Your task to perform on an android device: Go to settings Image 0: 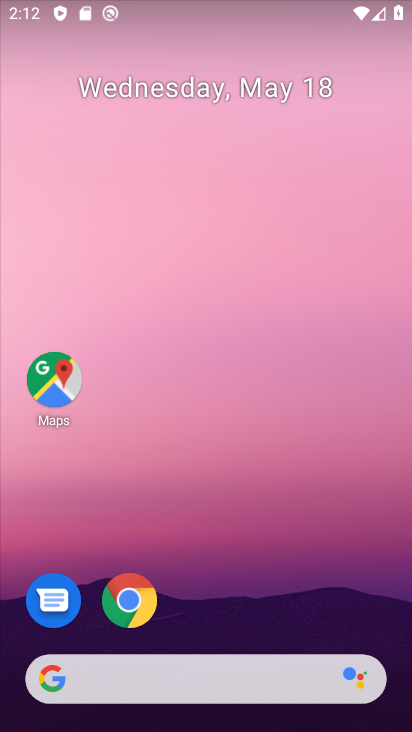
Step 0: press home button
Your task to perform on an android device: Go to settings Image 1: 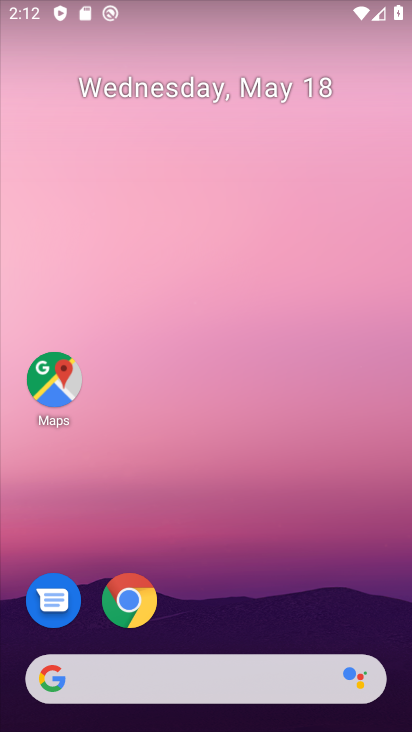
Step 1: drag from (146, 672) to (339, 38)
Your task to perform on an android device: Go to settings Image 2: 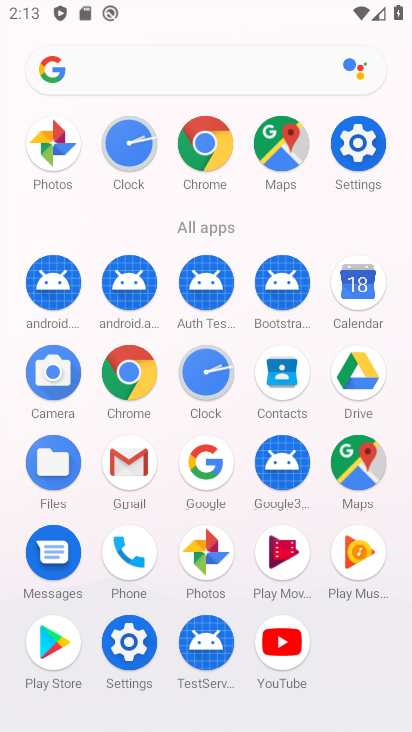
Step 2: click (371, 148)
Your task to perform on an android device: Go to settings Image 3: 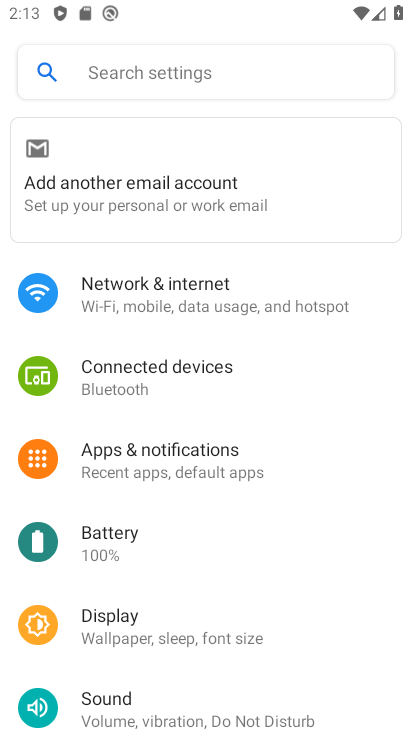
Step 3: task complete